Your task to perform on an android device: Open Google Maps Image 0: 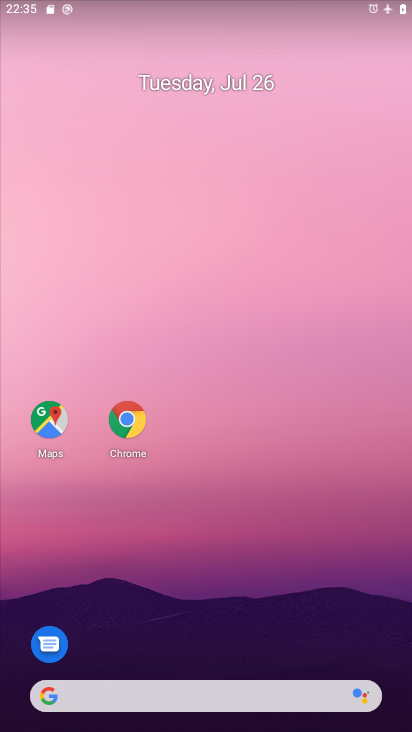
Step 0: click (46, 425)
Your task to perform on an android device: Open Google Maps Image 1: 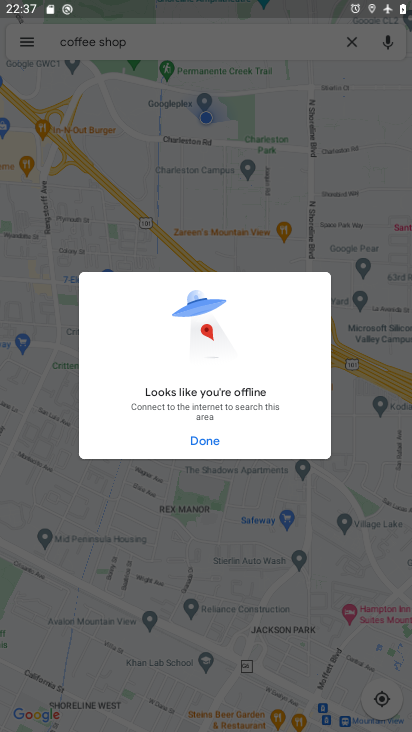
Step 1: task complete